Your task to perform on an android device: Open battery settings Image 0: 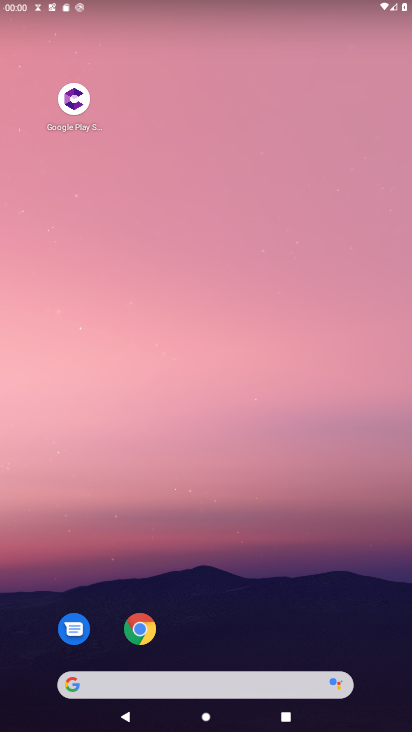
Step 0: drag from (186, 594) to (181, 177)
Your task to perform on an android device: Open battery settings Image 1: 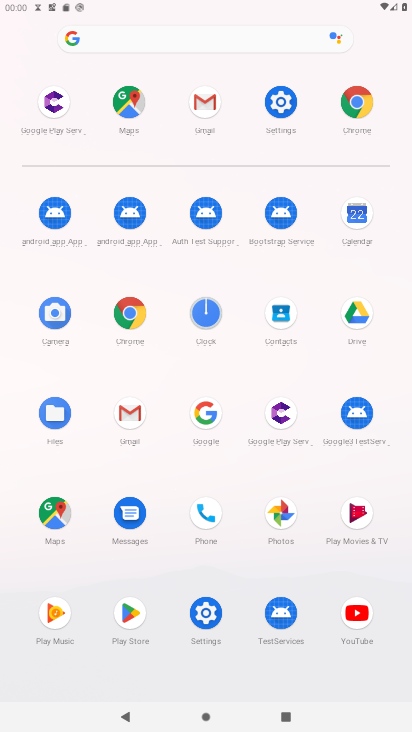
Step 1: click (271, 102)
Your task to perform on an android device: Open battery settings Image 2: 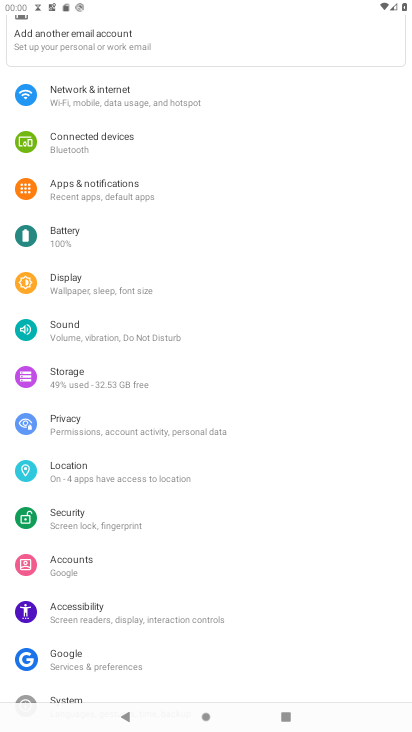
Step 2: click (93, 239)
Your task to perform on an android device: Open battery settings Image 3: 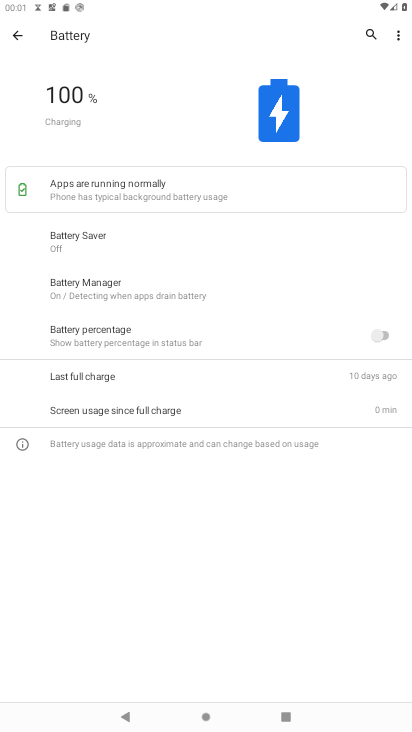
Step 3: task complete